Your task to perform on an android device: change the clock display to show seconds Image 0: 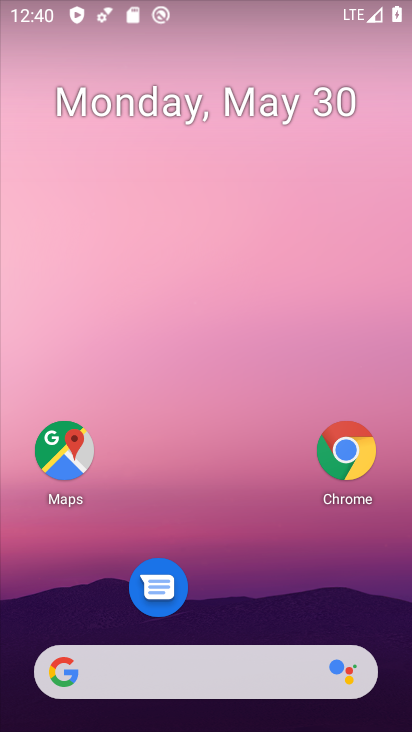
Step 0: drag from (260, 553) to (293, 147)
Your task to perform on an android device: change the clock display to show seconds Image 1: 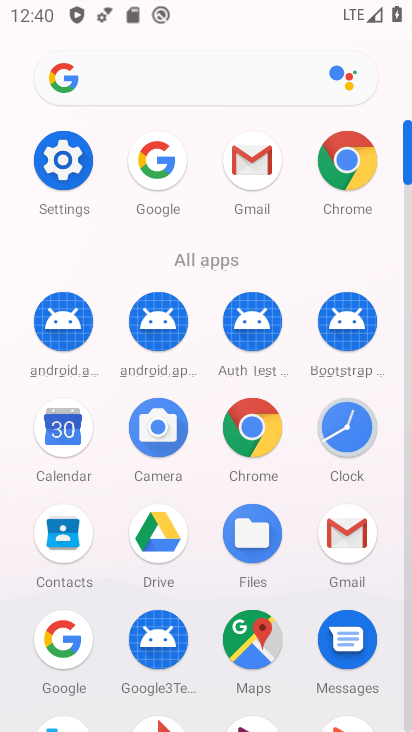
Step 1: click (348, 433)
Your task to perform on an android device: change the clock display to show seconds Image 2: 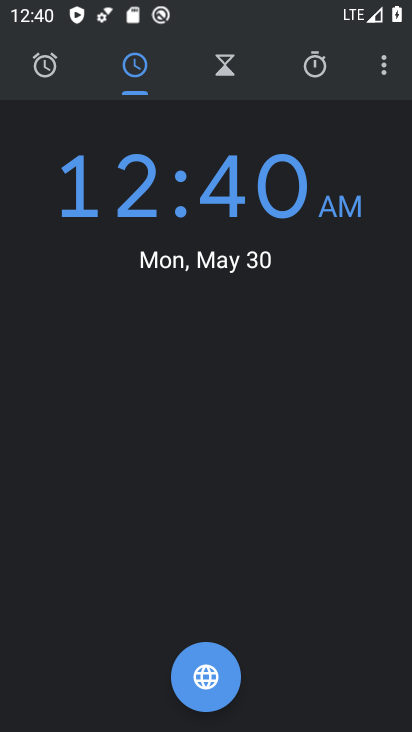
Step 2: click (380, 58)
Your task to perform on an android device: change the clock display to show seconds Image 3: 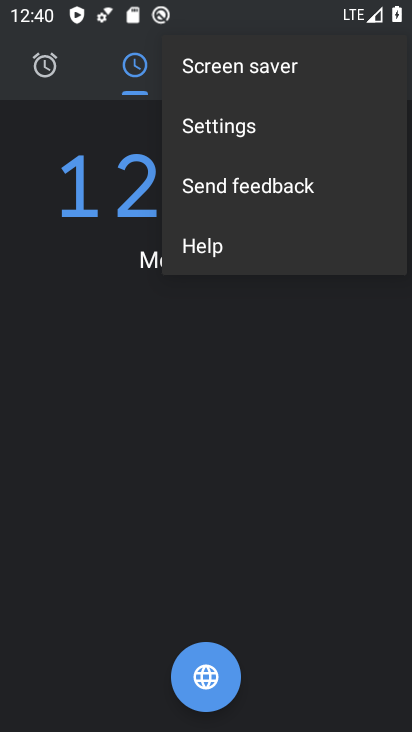
Step 3: click (259, 130)
Your task to perform on an android device: change the clock display to show seconds Image 4: 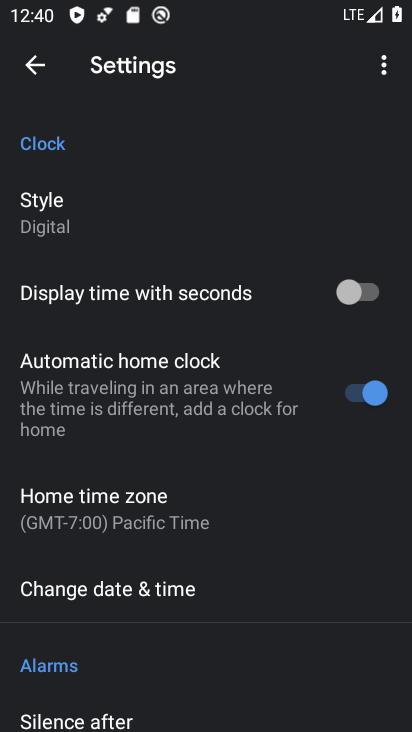
Step 4: click (363, 280)
Your task to perform on an android device: change the clock display to show seconds Image 5: 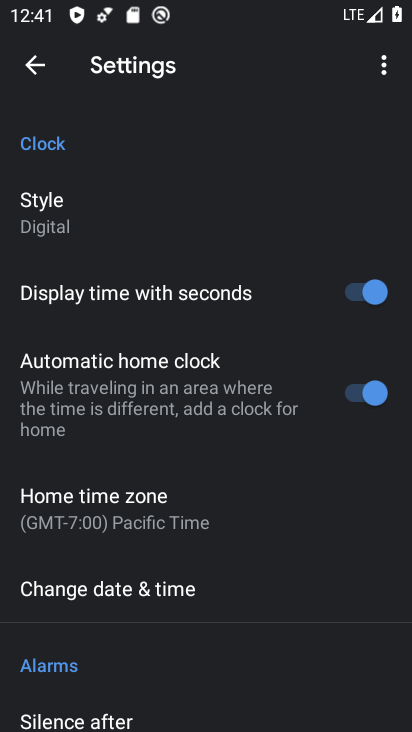
Step 5: task complete